Your task to perform on an android device: turn off smart reply in the gmail app Image 0: 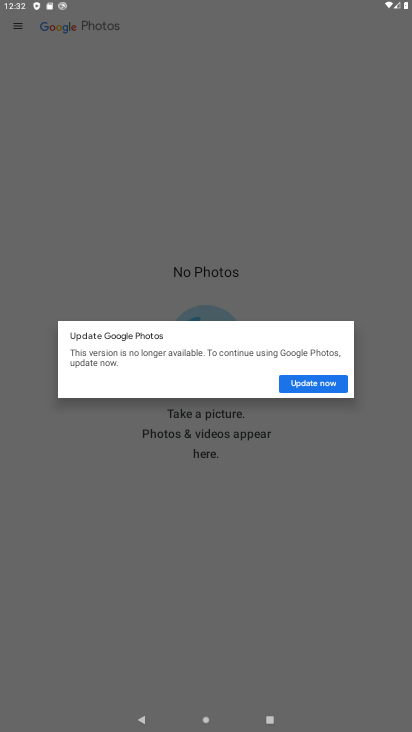
Step 0: press home button
Your task to perform on an android device: turn off smart reply in the gmail app Image 1: 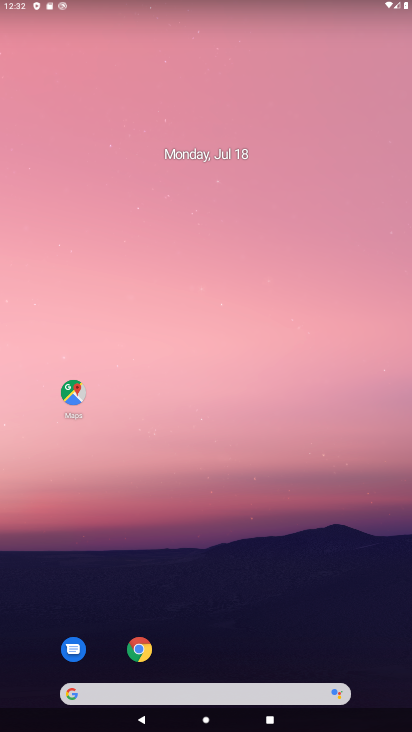
Step 1: drag from (26, 665) to (193, 164)
Your task to perform on an android device: turn off smart reply in the gmail app Image 2: 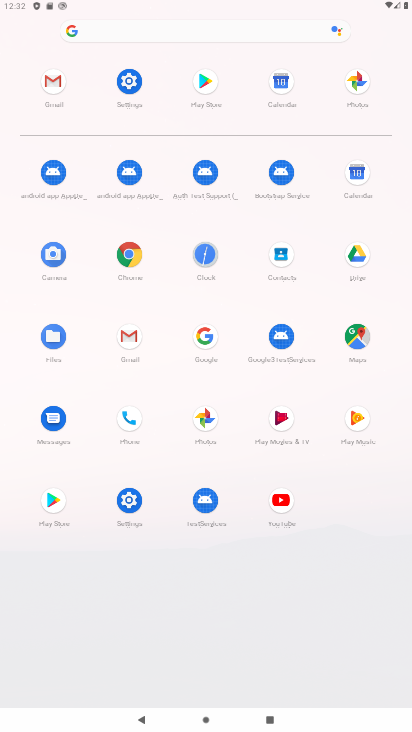
Step 2: click (128, 334)
Your task to perform on an android device: turn off smart reply in the gmail app Image 3: 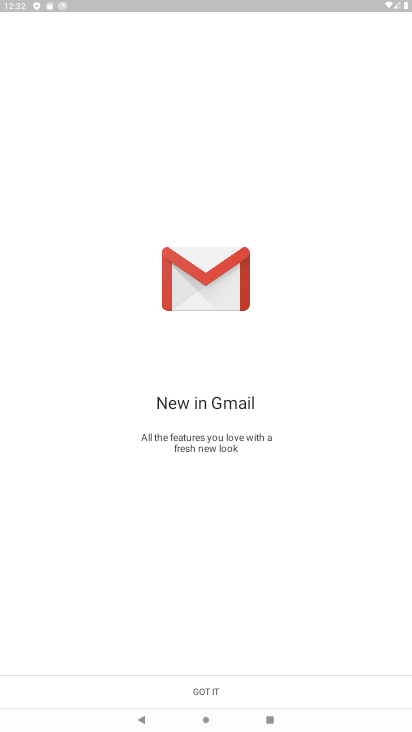
Step 3: click (214, 688)
Your task to perform on an android device: turn off smart reply in the gmail app Image 4: 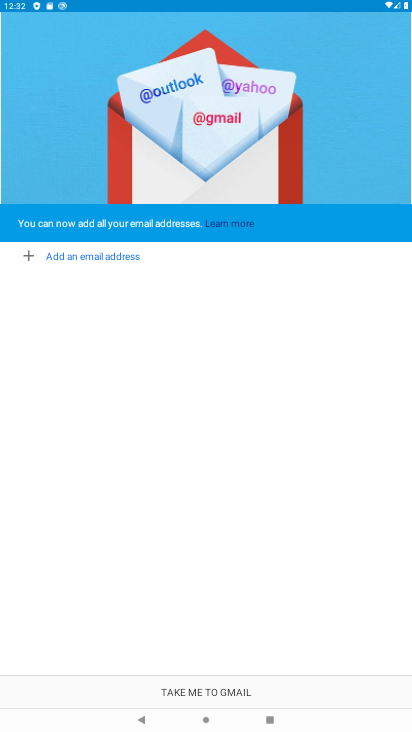
Step 4: click (157, 690)
Your task to perform on an android device: turn off smart reply in the gmail app Image 5: 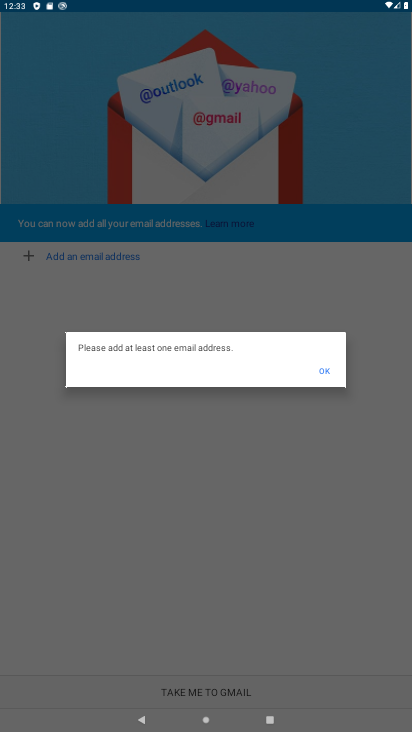
Step 5: task complete